Your task to perform on an android device: Go to settings Image 0: 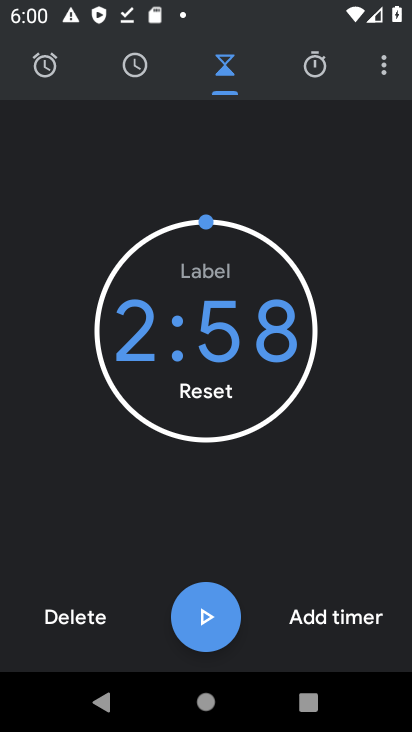
Step 0: drag from (264, 430) to (334, 245)
Your task to perform on an android device: Go to settings Image 1: 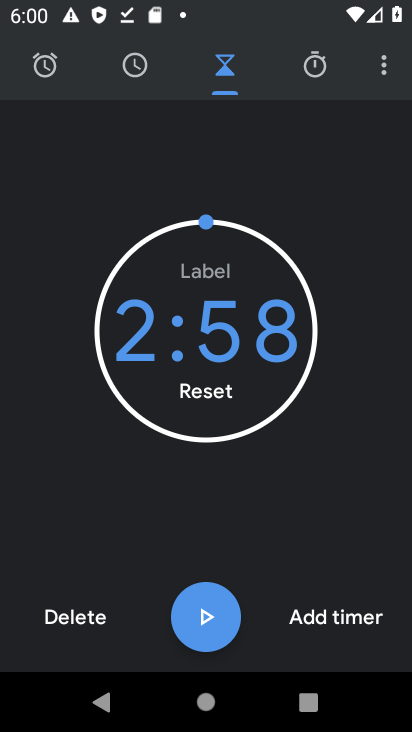
Step 1: drag from (376, 54) to (319, 106)
Your task to perform on an android device: Go to settings Image 2: 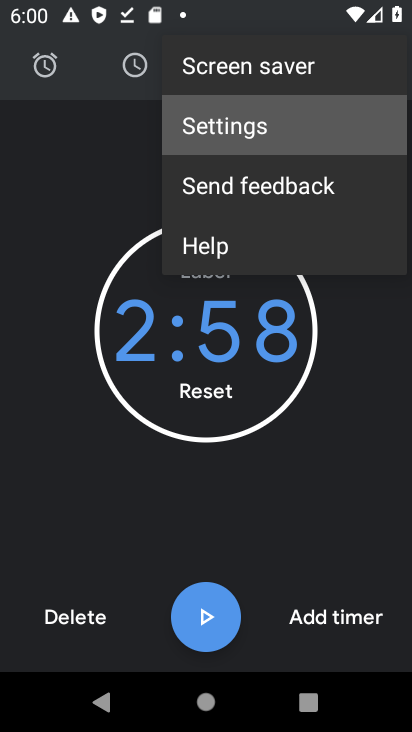
Step 2: click (379, 66)
Your task to perform on an android device: Go to settings Image 3: 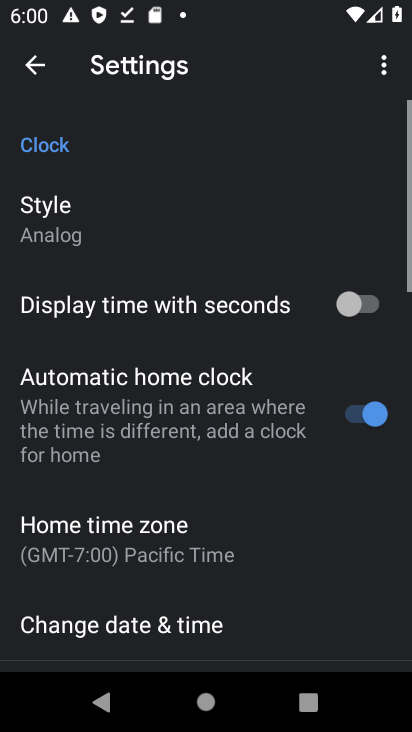
Step 3: click (246, 148)
Your task to perform on an android device: Go to settings Image 4: 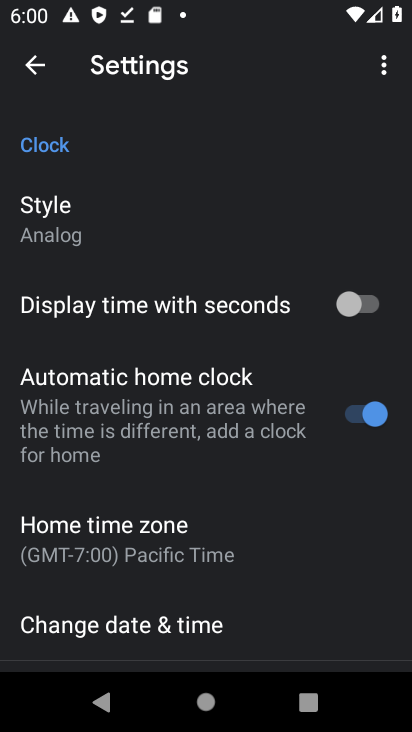
Step 4: drag from (196, 287) to (275, 112)
Your task to perform on an android device: Go to settings Image 5: 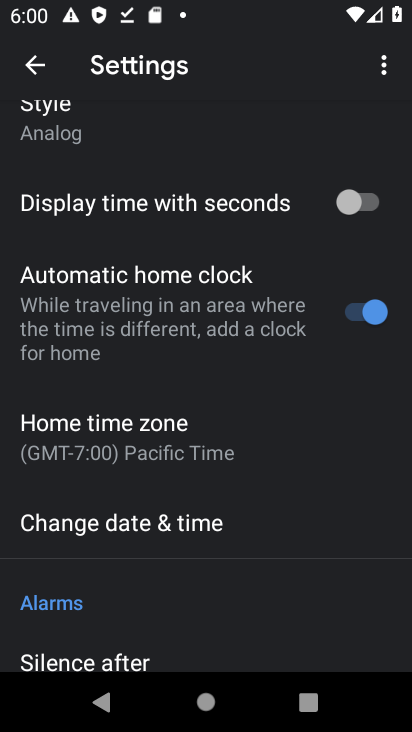
Step 5: press home button
Your task to perform on an android device: Go to settings Image 6: 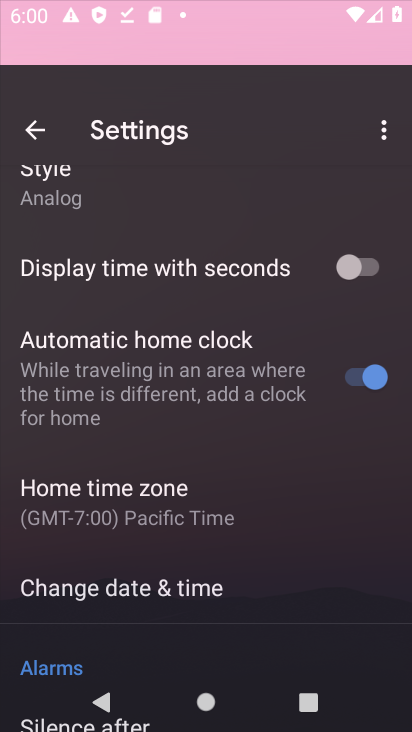
Step 6: drag from (271, 364) to (288, 106)
Your task to perform on an android device: Go to settings Image 7: 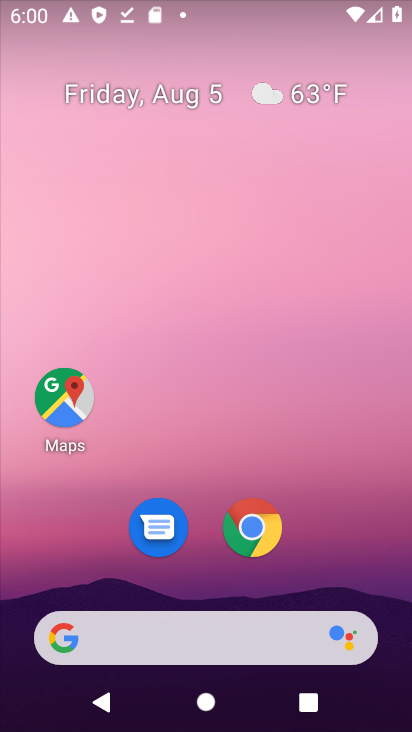
Step 7: drag from (207, 567) to (270, 152)
Your task to perform on an android device: Go to settings Image 8: 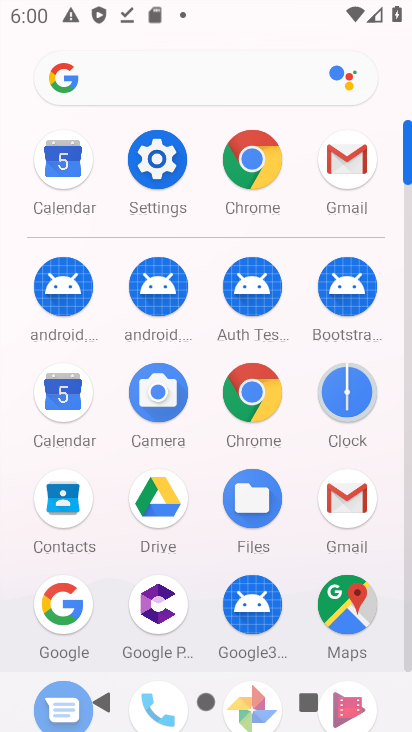
Step 8: click (160, 160)
Your task to perform on an android device: Go to settings Image 9: 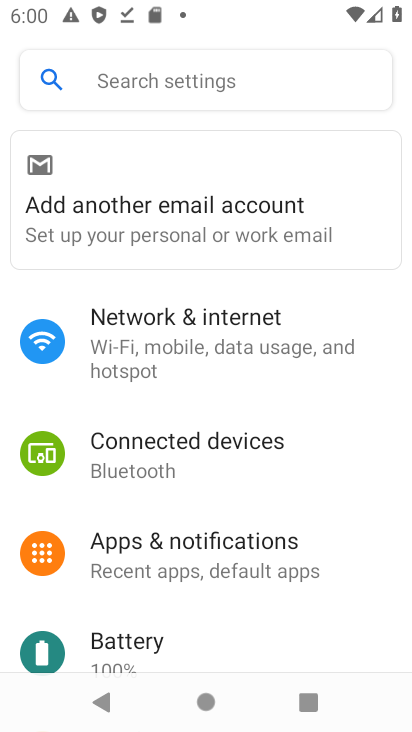
Step 9: task complete